Your task to perform on an android device: check data usage Image 0: 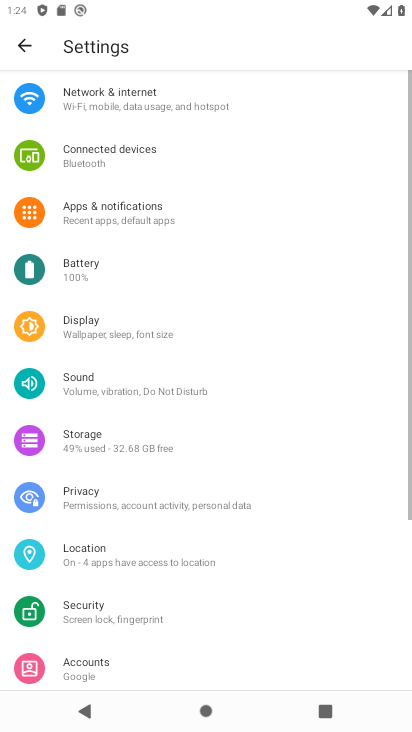
Step 0: drag from (344, 556) to (352, 431)
Your task to perform on an android device: check data usage Image 1: 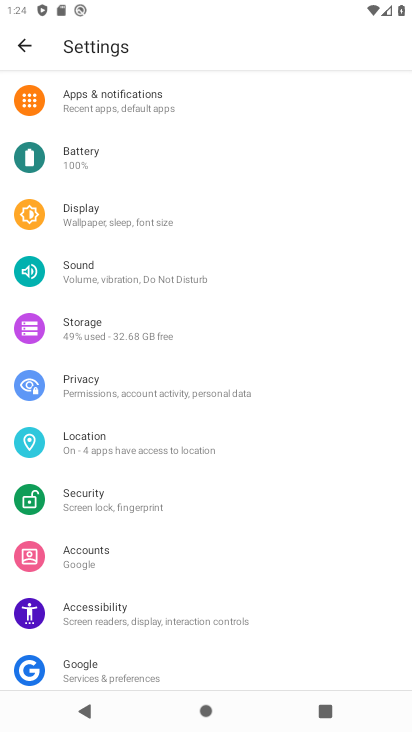
Step 1: drag from (348, 560) to (360, 349)
Your task to perform on an android device: check data usage Image 2: 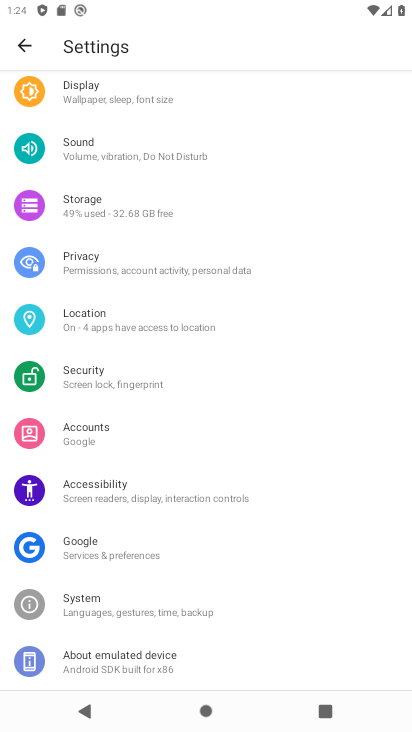
Step 2: drag from (337, 517) to (367, 344)
Your task to perform on an android device: check data usage Image 3: 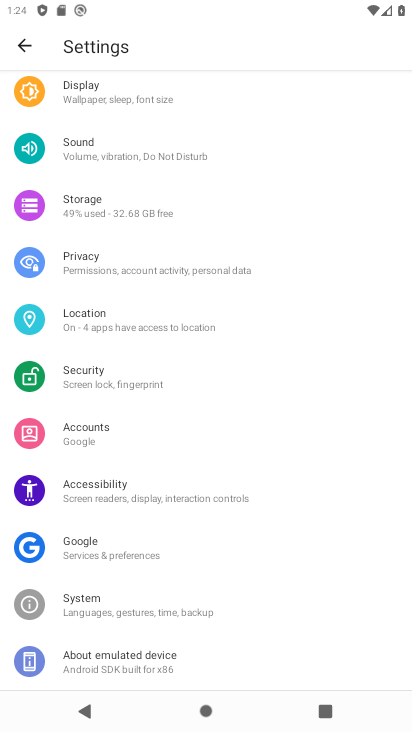
Step 3: drag from (334, 179) to (338, 289)
Your task to perform on an android device: check data usage Image 4: 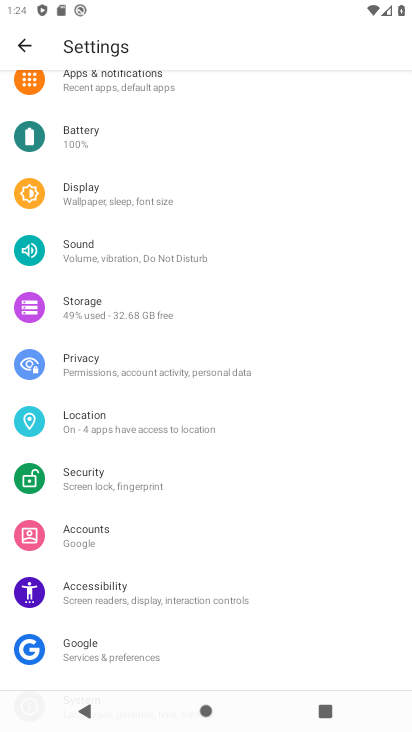
Step 4: drag from (348, 167) to (344, 304)
Your task to perform on an android device: check data usage Image 5: 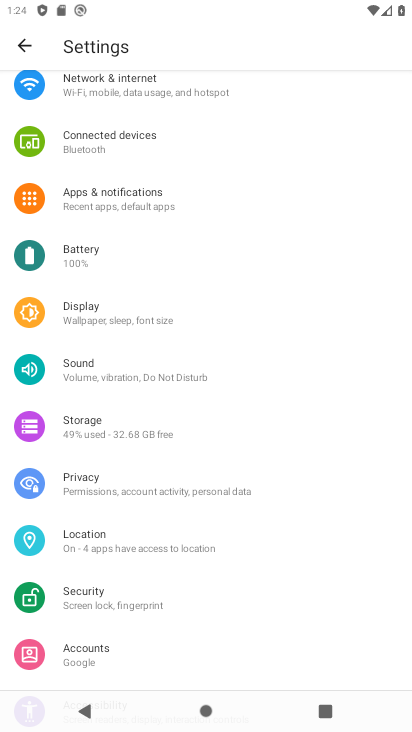
Step 5: drag from (318, 156) to (313, 273)
Your task to perform on an android device: check data usage Image 6: 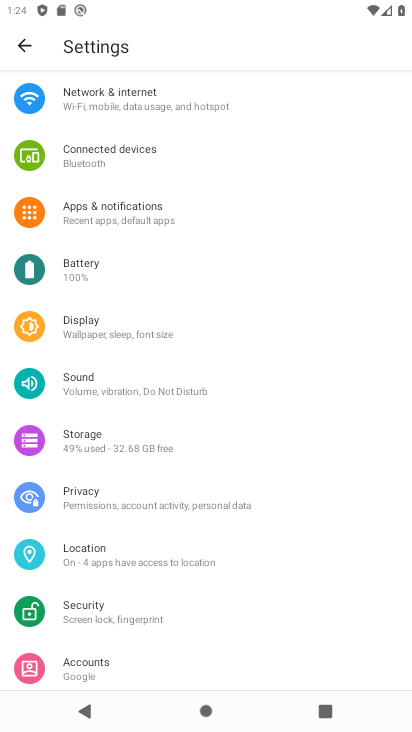
Step 6: click (223, 110)
Your task to perform on an android device: check data usage Image 7: 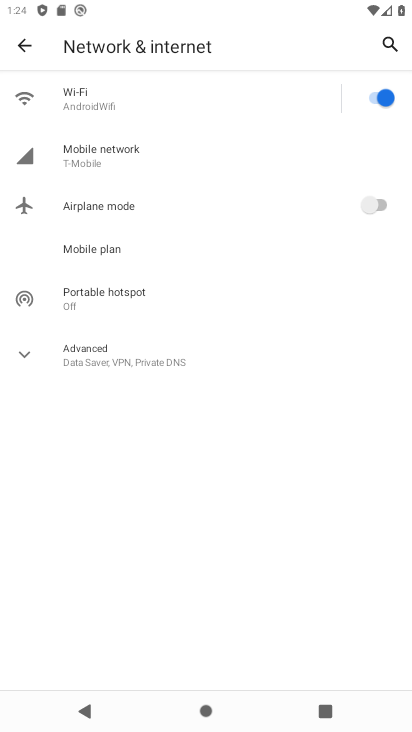
Step 7: click (145, 150)
Your task to perform on an android device: check data usage Image 8: 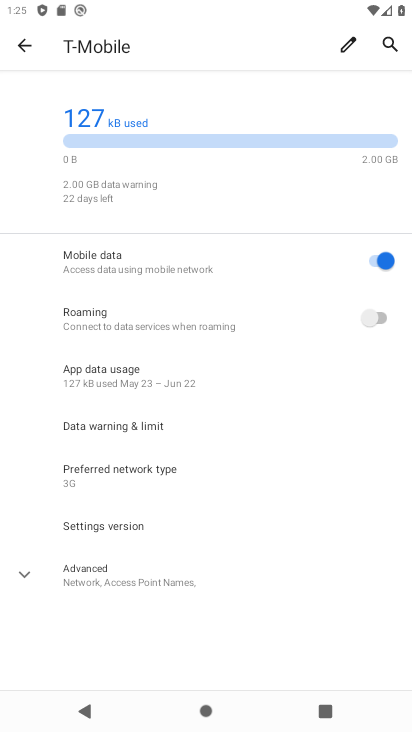
Step 8: click (173, 392)
Your task to perform on an android device: check data usage Image 9: 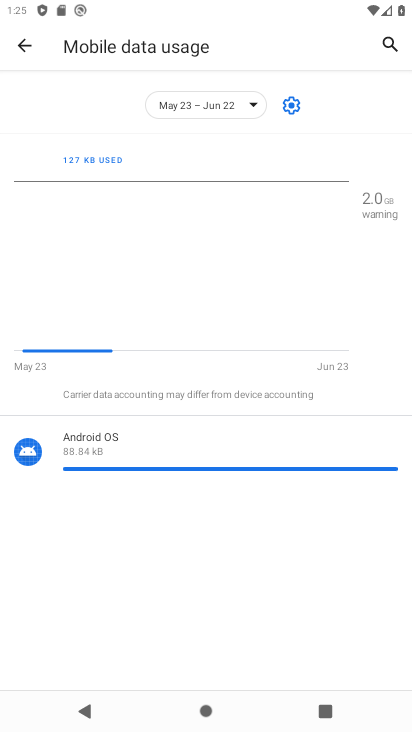
Step 9: task complete